Your task to perform on an android device: Check the weather Image 0: 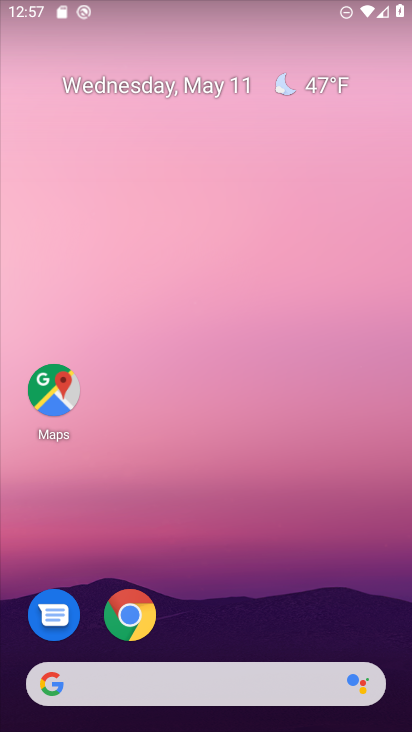
Step 0: drag from (348, 541) to (350, 50)
Your task to perform on an android device: Check the weather Image 1: 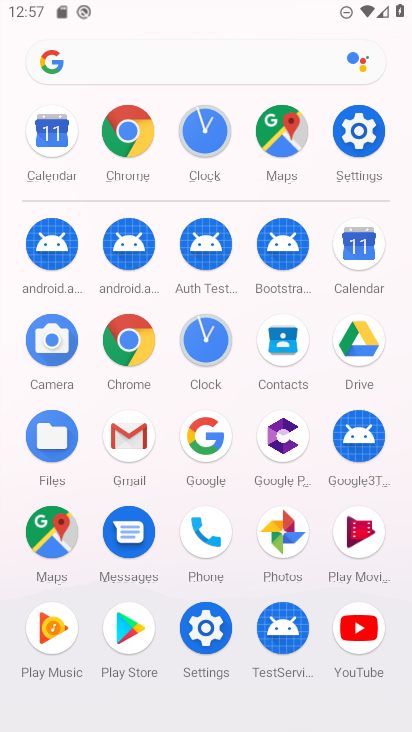
Step 1: press home button
Your task to perform on an android device: Check the weather Image 2: 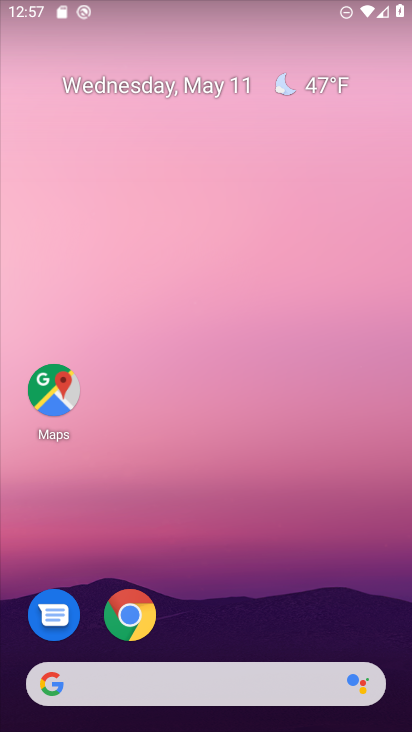
Step 2: click (320, 71)
Your task to perform on an android device: Check the weather Image 3: 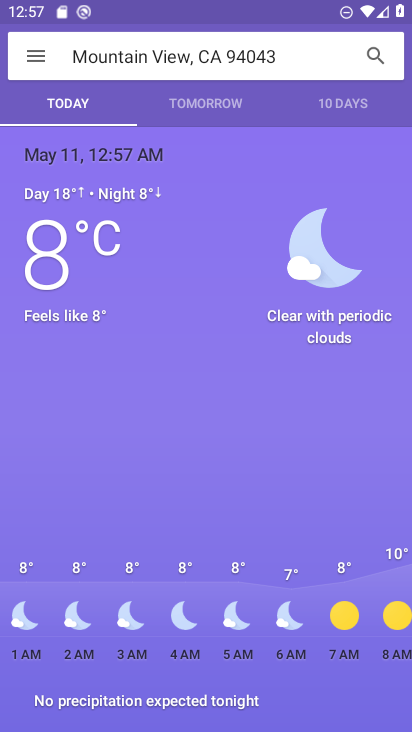
Step 3: task complete